Your task to perform on an android device: Open CNN.com Image 0: 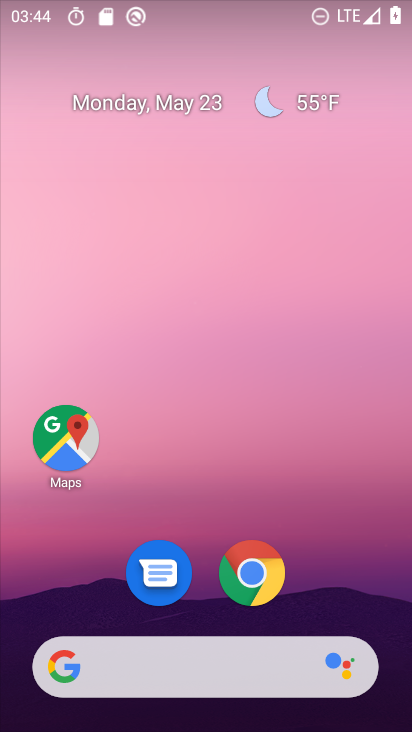
Step 0: click (259, 573)
Your task to perform on an android device: Open CNN.com Image 1: 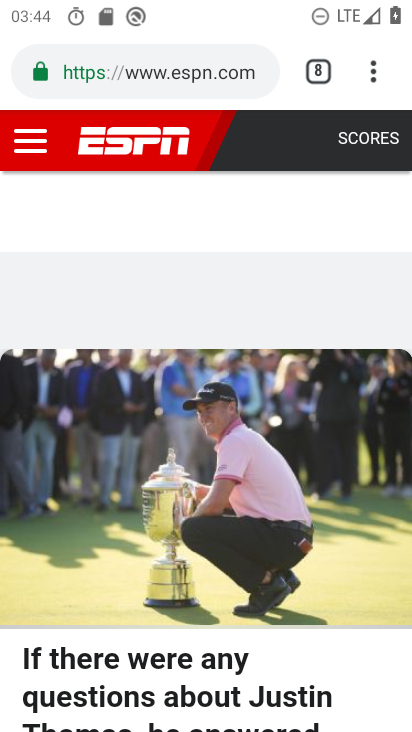
Step 1: click (322, 65)
Your task to perform on an android device: Open CNN.com Image 2: 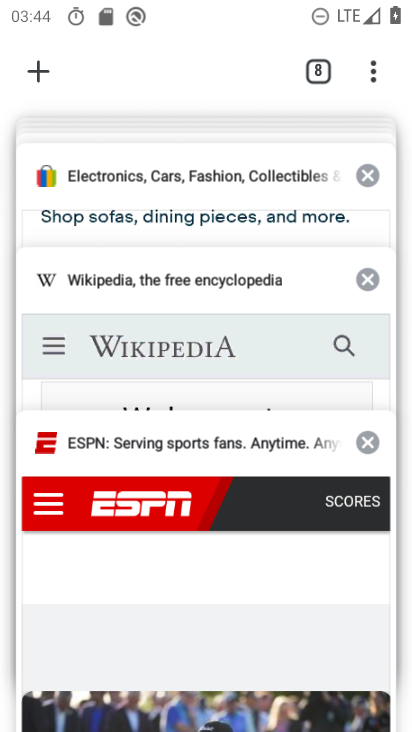
Step 2: click (40, 78)
Your task to perform on an android device: Open CNN.com Image 3: 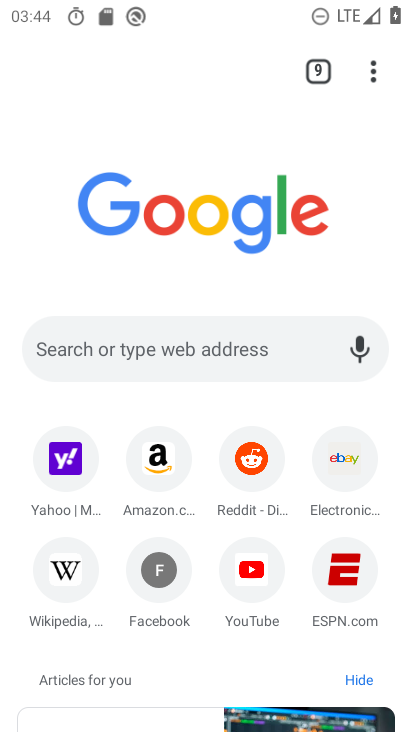
Step 3: click (243, 342)
Your task to perform on an android device: Open CNN.com Image 4: 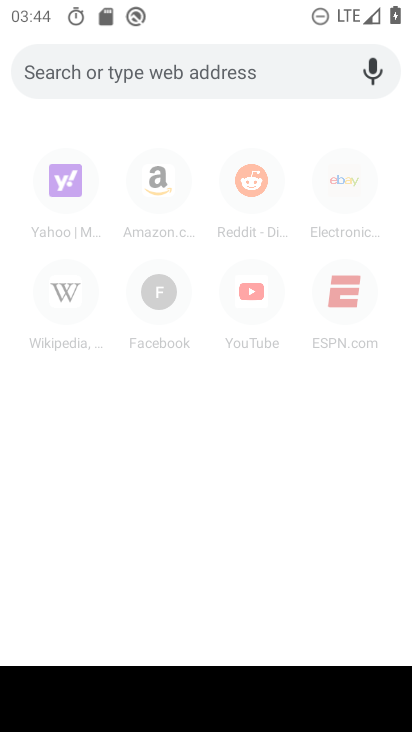
Step 4: type "CNN.com"
Your task to perform on an android device: Open CNN.com Image 5: 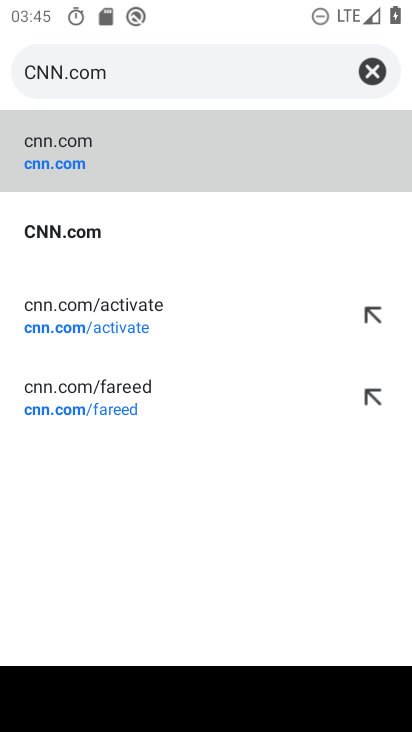
Step 5: click (59, 163)
Your task to perform on an android device: Open CNN.com Image 6: 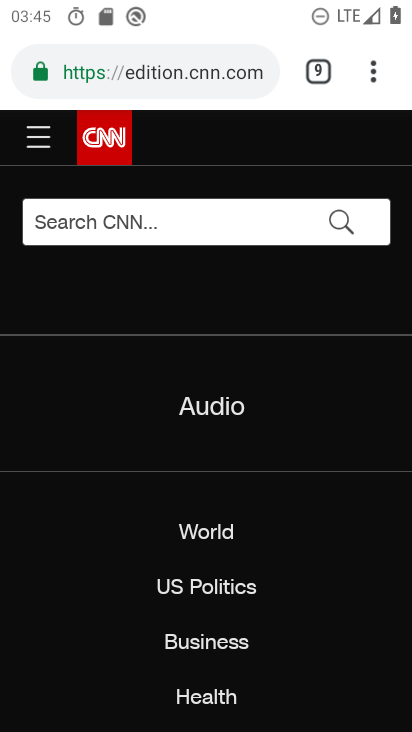
Step 6: task complete